Your task to perform on an android device: Search for pizza restaurants on Maps Image 0: 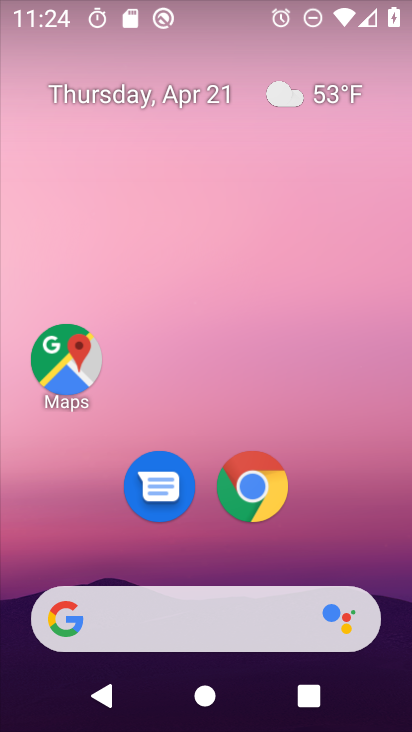
Step 0: click (76, 368)
Your task to perform on an android device: Search for pizza restaurants on Maps Image 1: 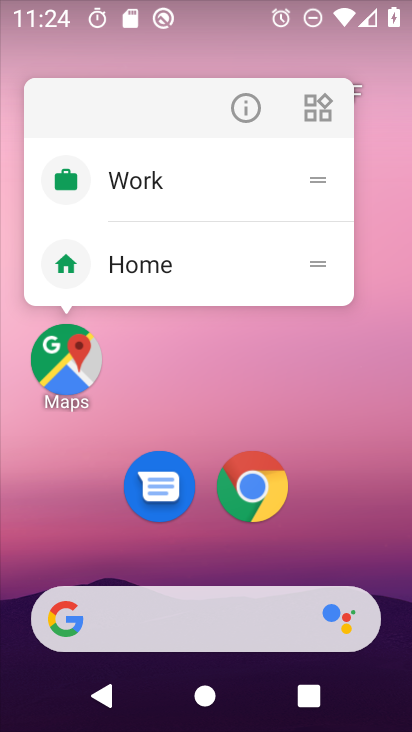
Step 1: click (76, 369)
Your task to perform on an android device: Search for pizza restaurants on Maps Image 2: 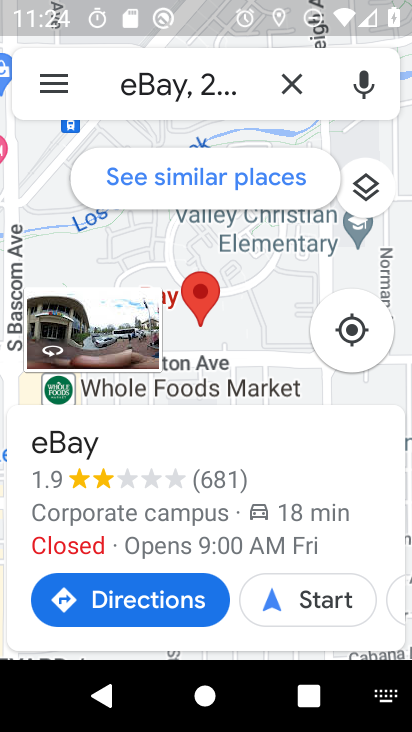
Step 2: click (287, 78)
Your task to perform on an android device: Search for pizza restaurants on Maps Image 3: 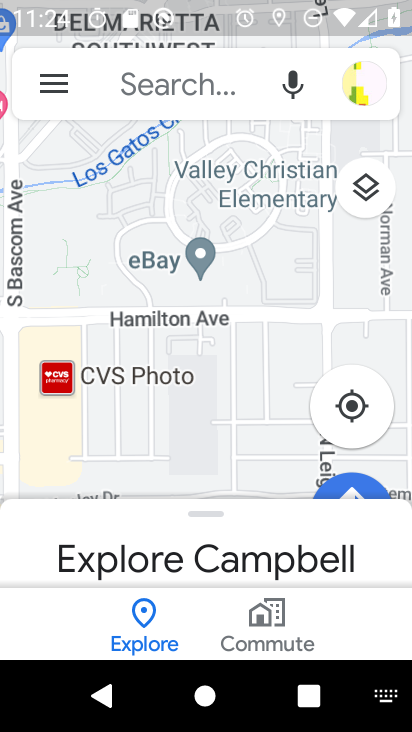
Step 3: click (118, 84)
Your task to perform on an android device: Search for pizza restaurants on Maps Image 4: 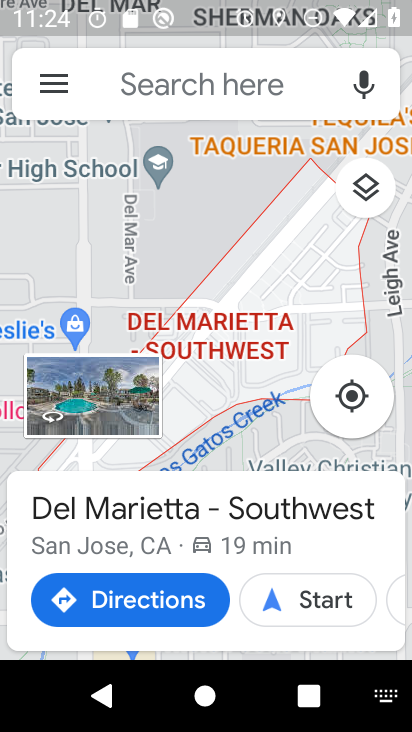
Step 4: type "pizza restaurants"
Your task to perform on an android device: Search for pizza restaurants on Maps Image 5: 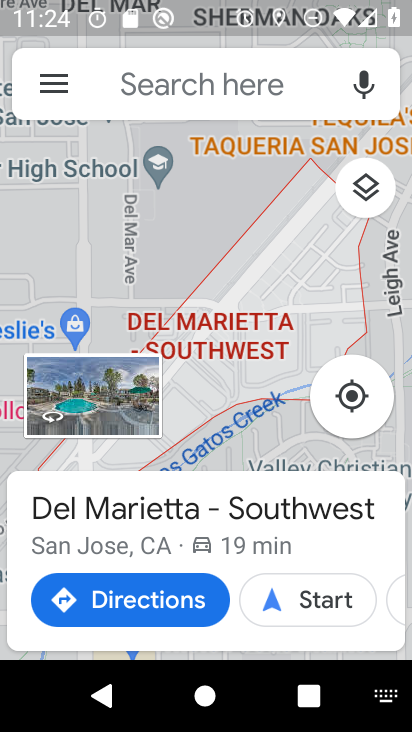
Step 5: click (110, 85)
Your task to perform on an android device: Search for pizza restaurants on Maps Image 6: 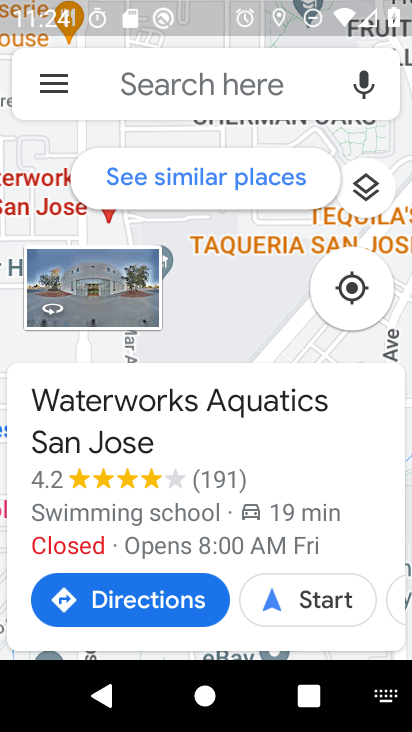
Step 6: click (117, 86)
Your task to perform on an android device: Search for pizza restaurants on Maps Image 7: 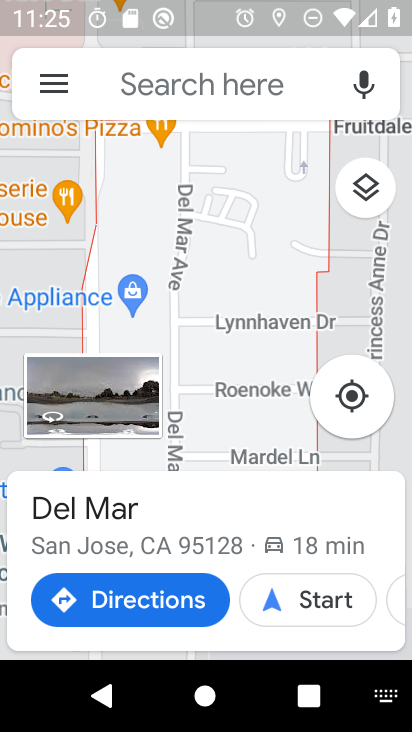
Step 7: click (115, 74)
Your task to perform on an android device: Search for pizza restaurants on Maps Image 8: 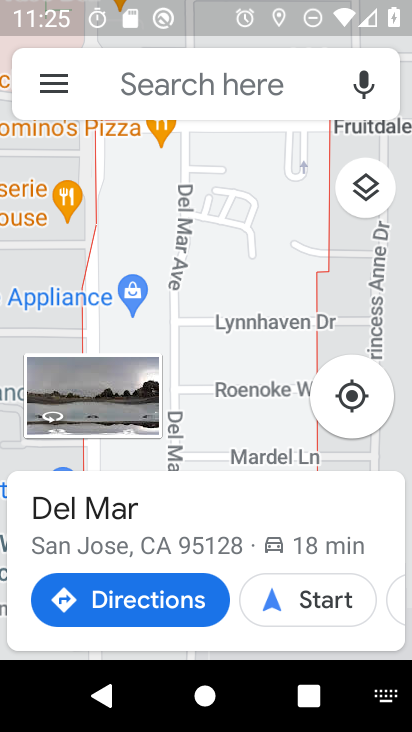
Step 8: click (122, 83)
Your task to perform on an android device: Search for pizza restaurants on Maps Image 9: 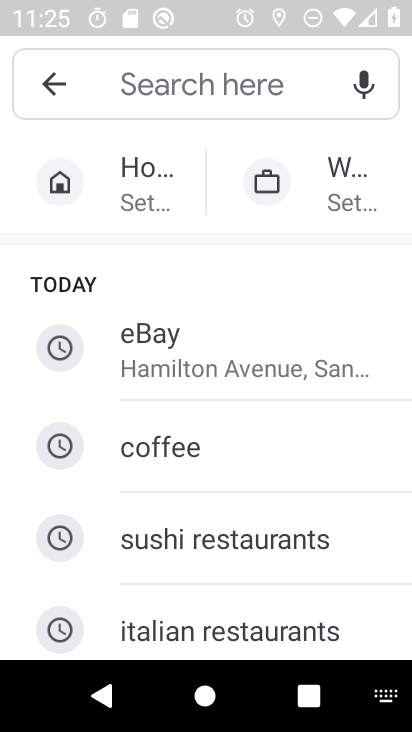
Step 9: type "pizza restaurants"
Your task to perform on an android device: Search for pizza restaurants on Maps Image 10: 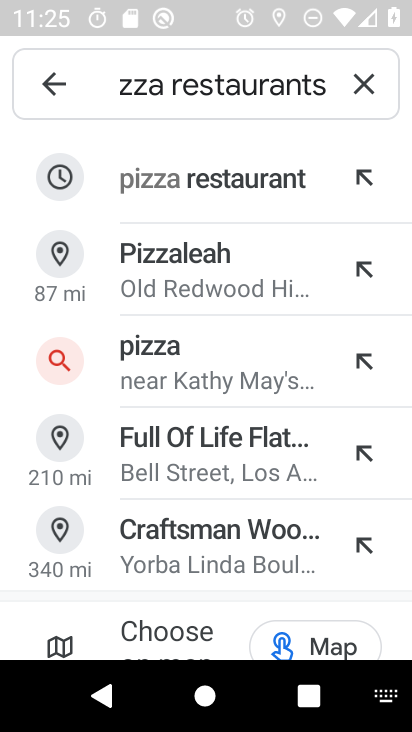
Step 10: click (236, 181)
Your task to perform on an android device: Search for pizza restaurants on Maps Image 11: 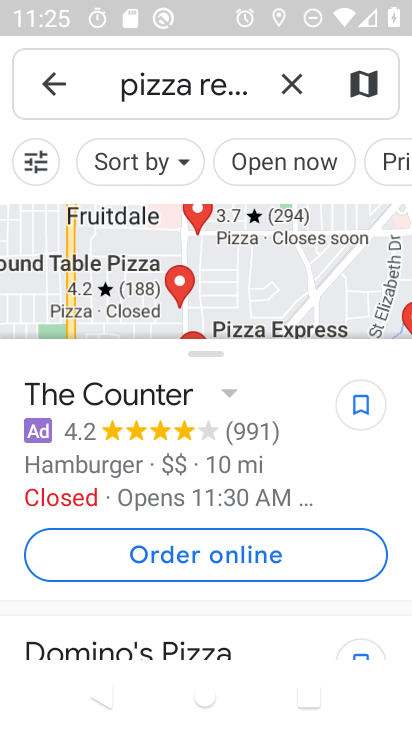
Step 11: task complete